Your task to perform on an android device: allow cookies in the chrome app Image 0: 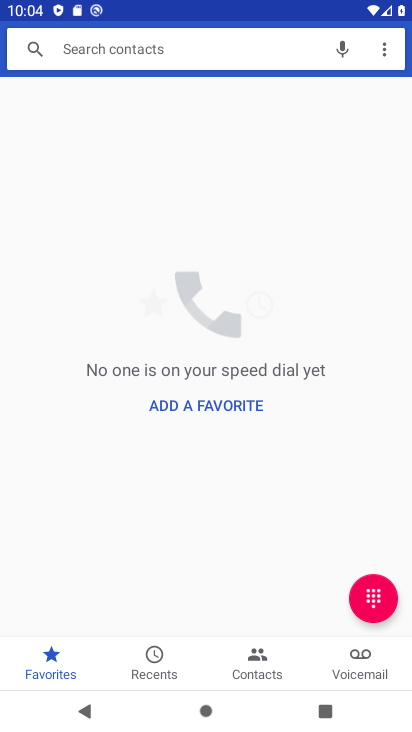
Step 0: press home button
Your task to perform on an android device: allow cookies in the chrome app Image 1: 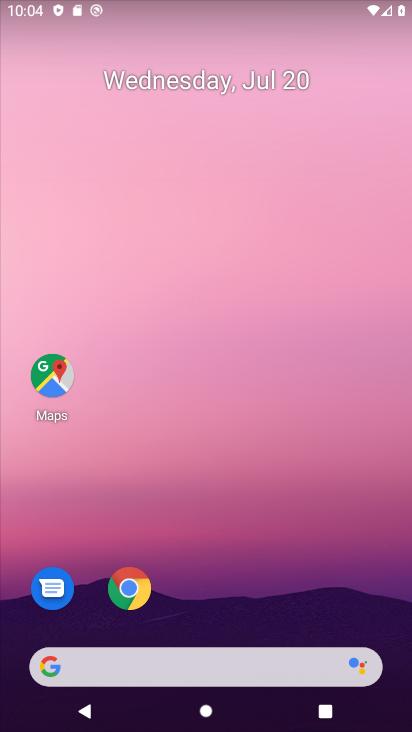
Step 1: click (133, 586)
Your task to perform on an android device: allow cookies in the chrome app Image 2: 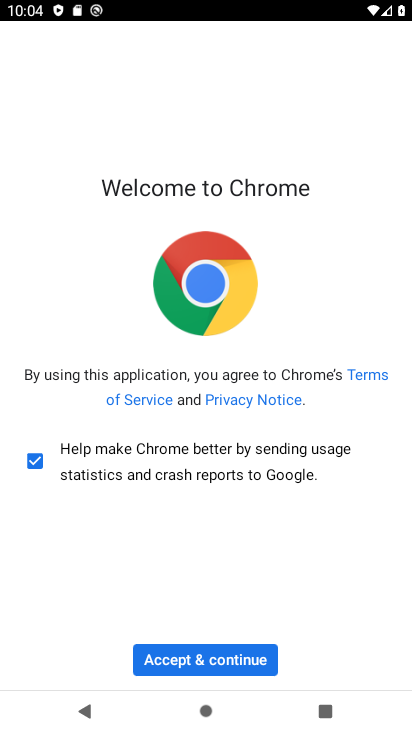
Step 2: click (220, 645)
Your task to perform on an android device: allow cookies in the chrome app Image 3: 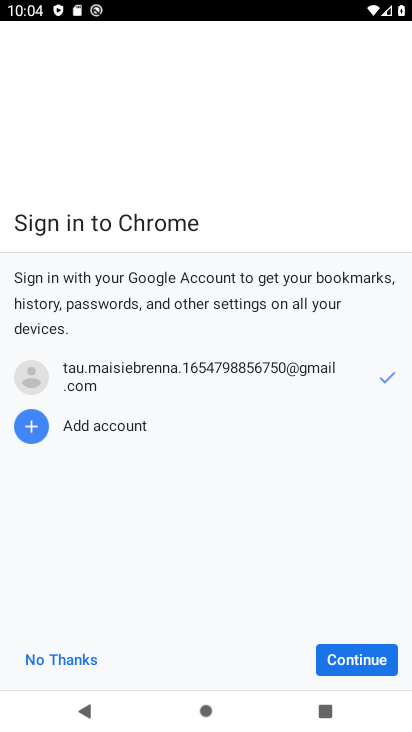
Step 3: click (376, 660)
Your task to perform on an android device: allow cookies in the chrome app Image 4: 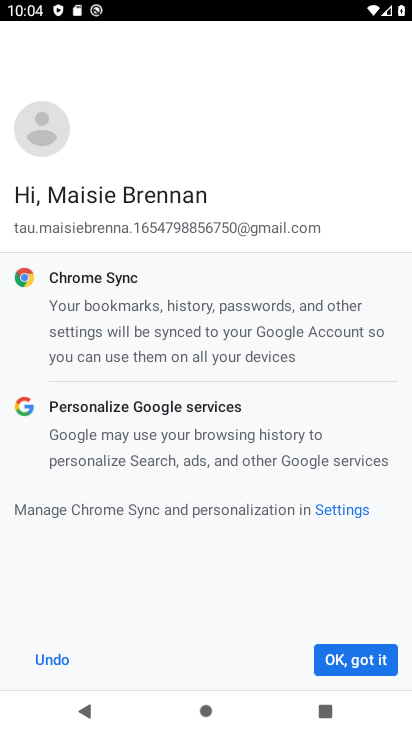
Step 4: click (360, 671)
Your task to perform on an android device: allow cookies in the chrome app Image 5: 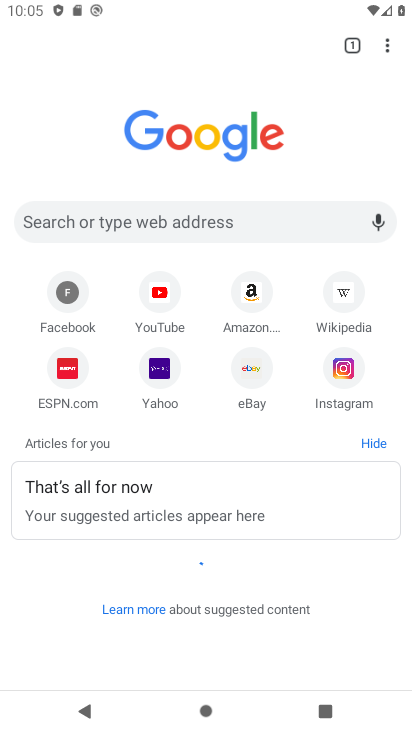
Step 5: click (383, 41)
Your task to perform on an android device: allow cookies in the chrome app Image 6: 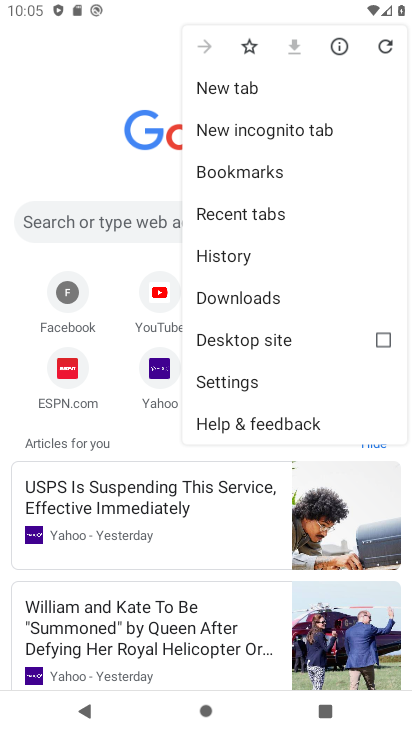
Step 6: click (221, 391)
Your task to perform on an android device: allow cookies in the chrome app Image 7: 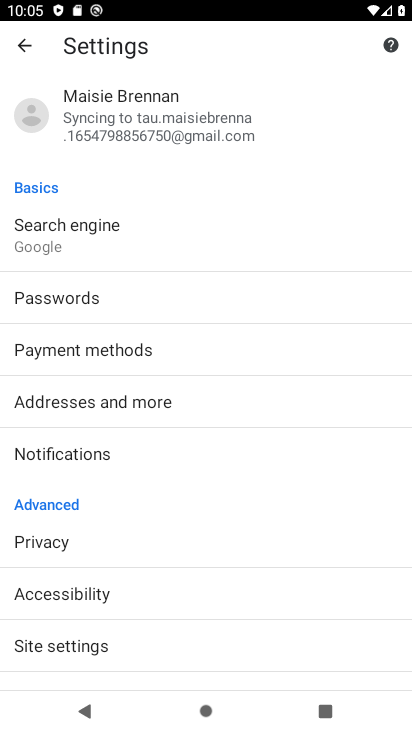
Step 7: click (88, 654)
Your task to perform on an android device: allow cookies in the chrome app Image 8: 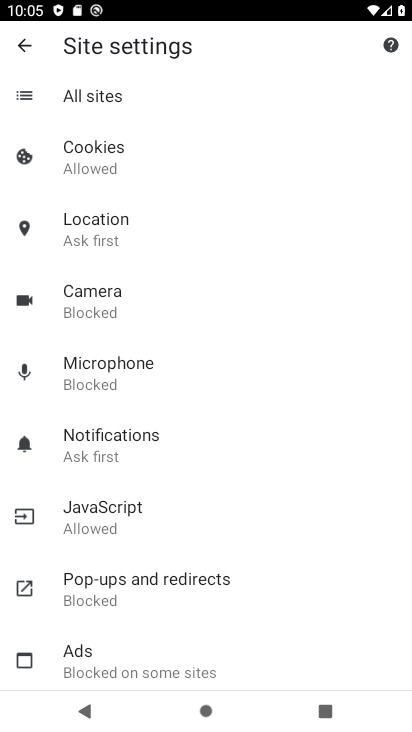
Step 8: click (107, 162)
Your task to perform on an android device: allow cookies in the chrome app Image 9: 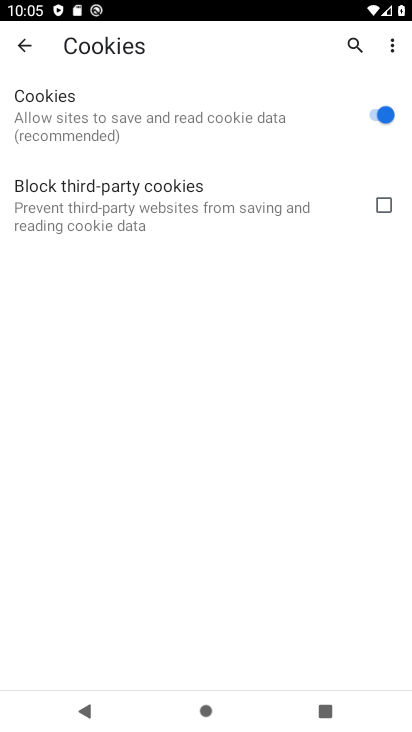
Step 9: task complete